Your task to perform on an android device: turn off translation in the chrome app Image 0: 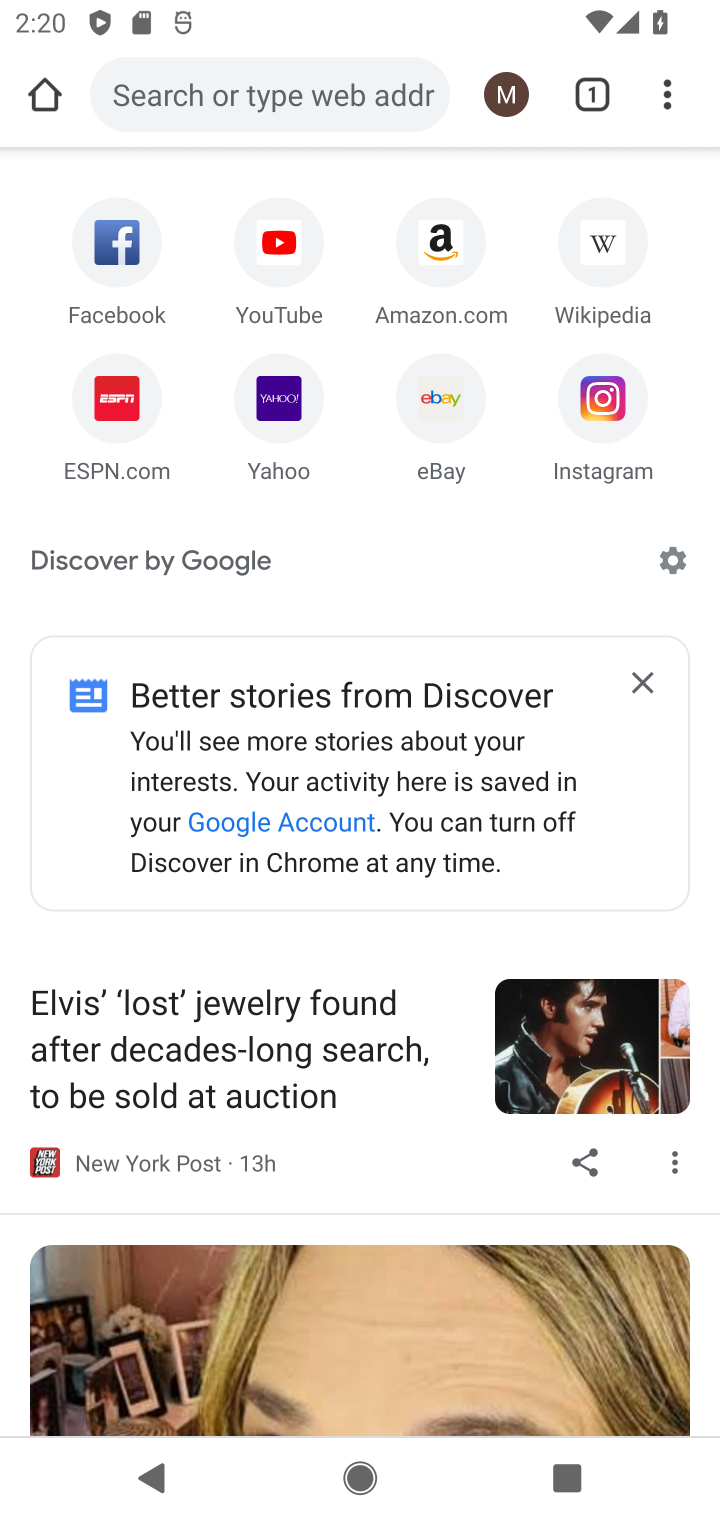
Step 0: press home button
Your task to perform on an android device: turn off translation in the chrome app Image 1: 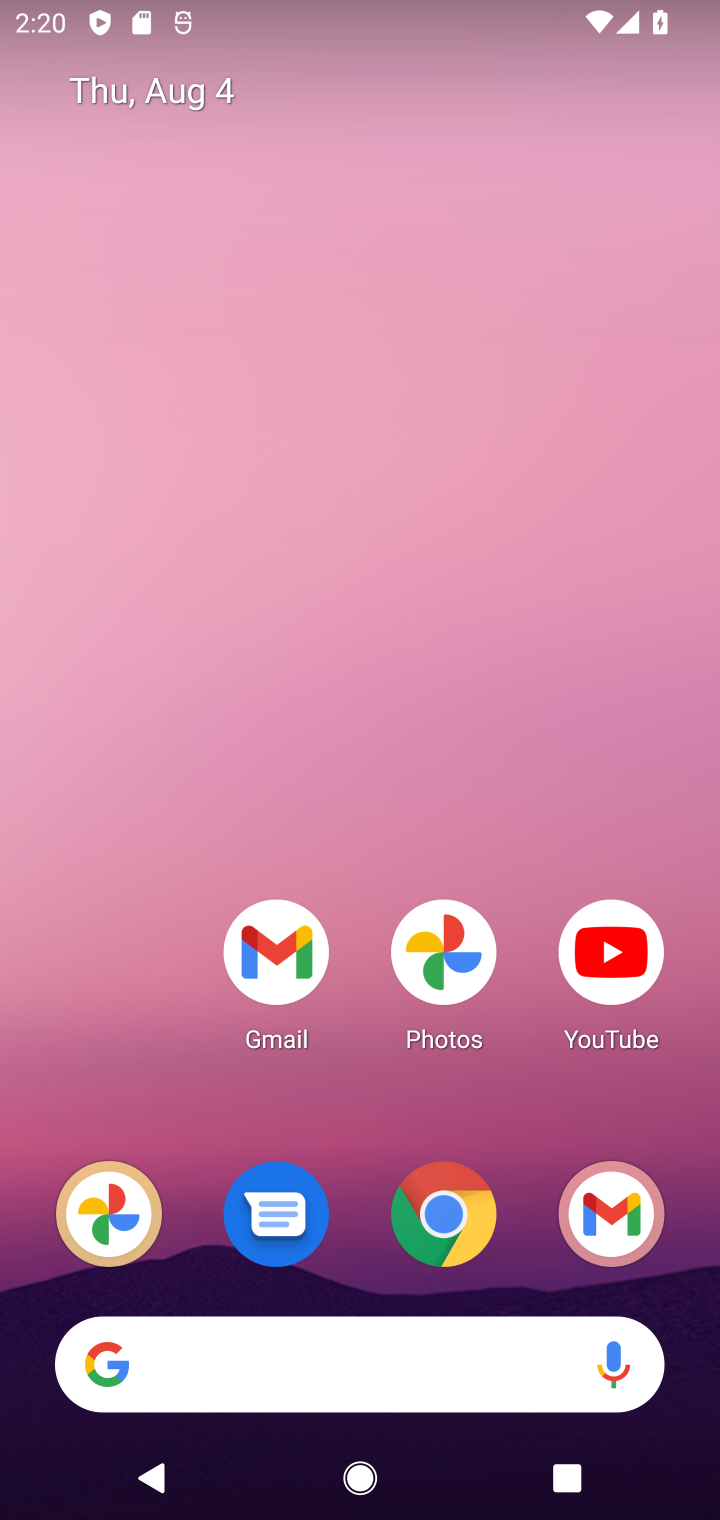
Step 1: drag from (148, 1080) to (371, 49)
Your task to perform on an android device: turn off translation in the chrome app Image 2: 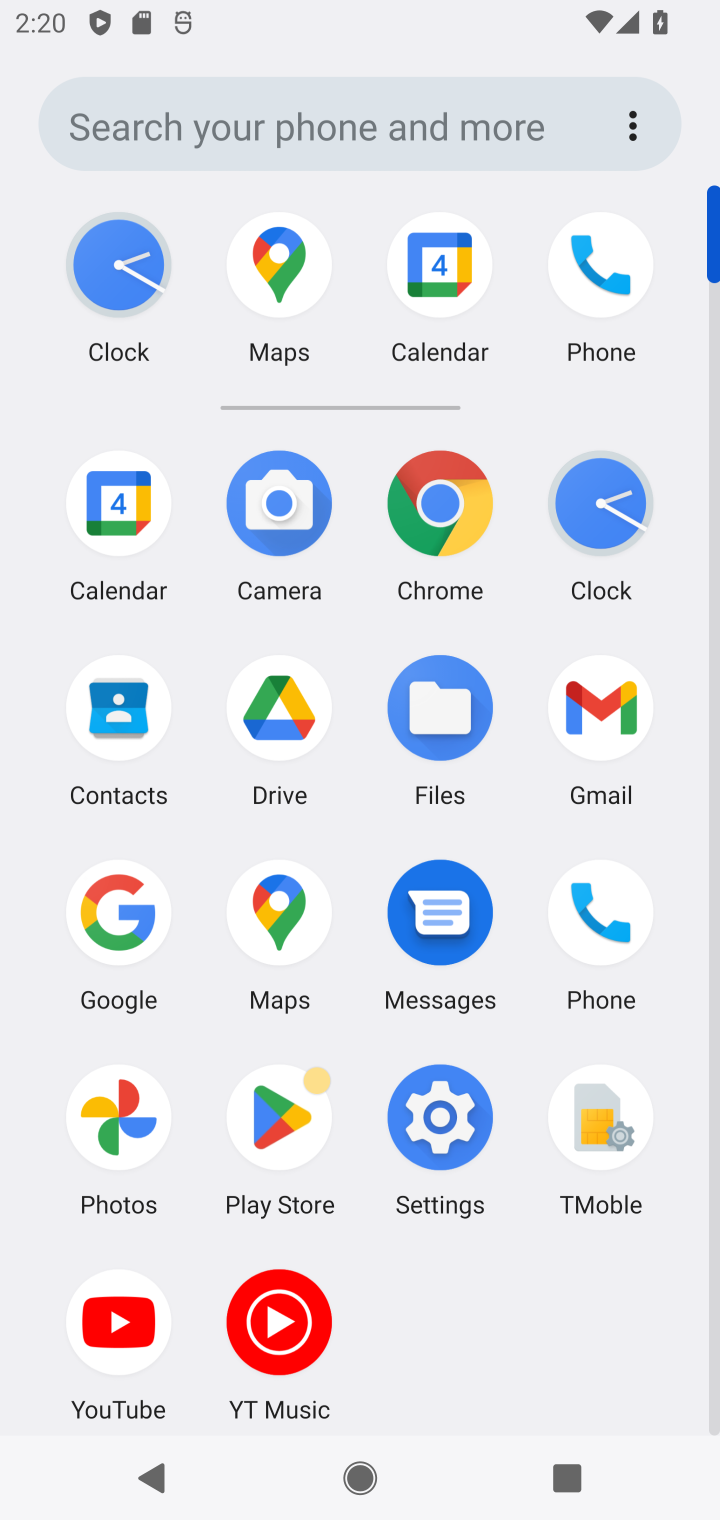
Step 2: click (461, 523)
Your task to perform on an android device: turn off translation in the chrome app Image 3: 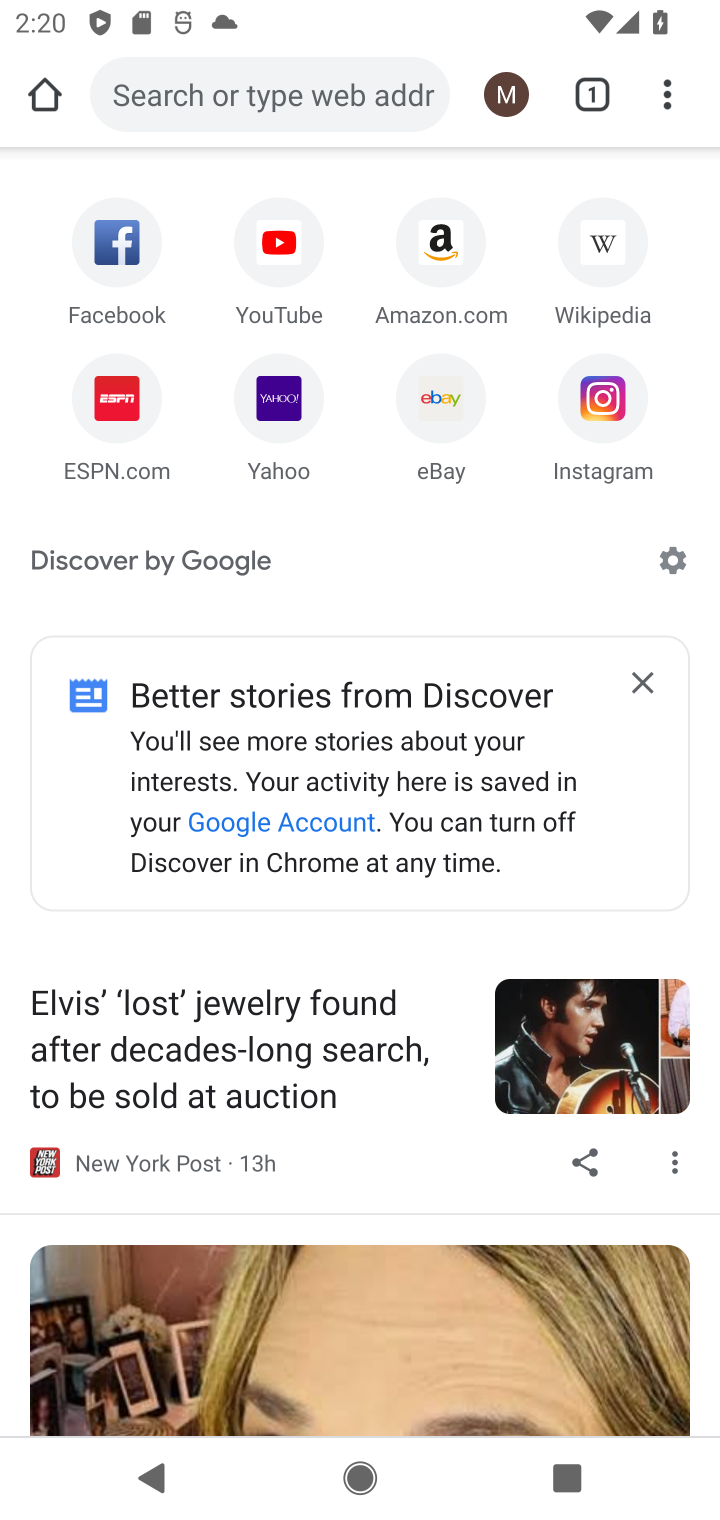
Step 3: click (676, 96)
Your task to perform on an android device: turn off translation in the chrome app Image 4: 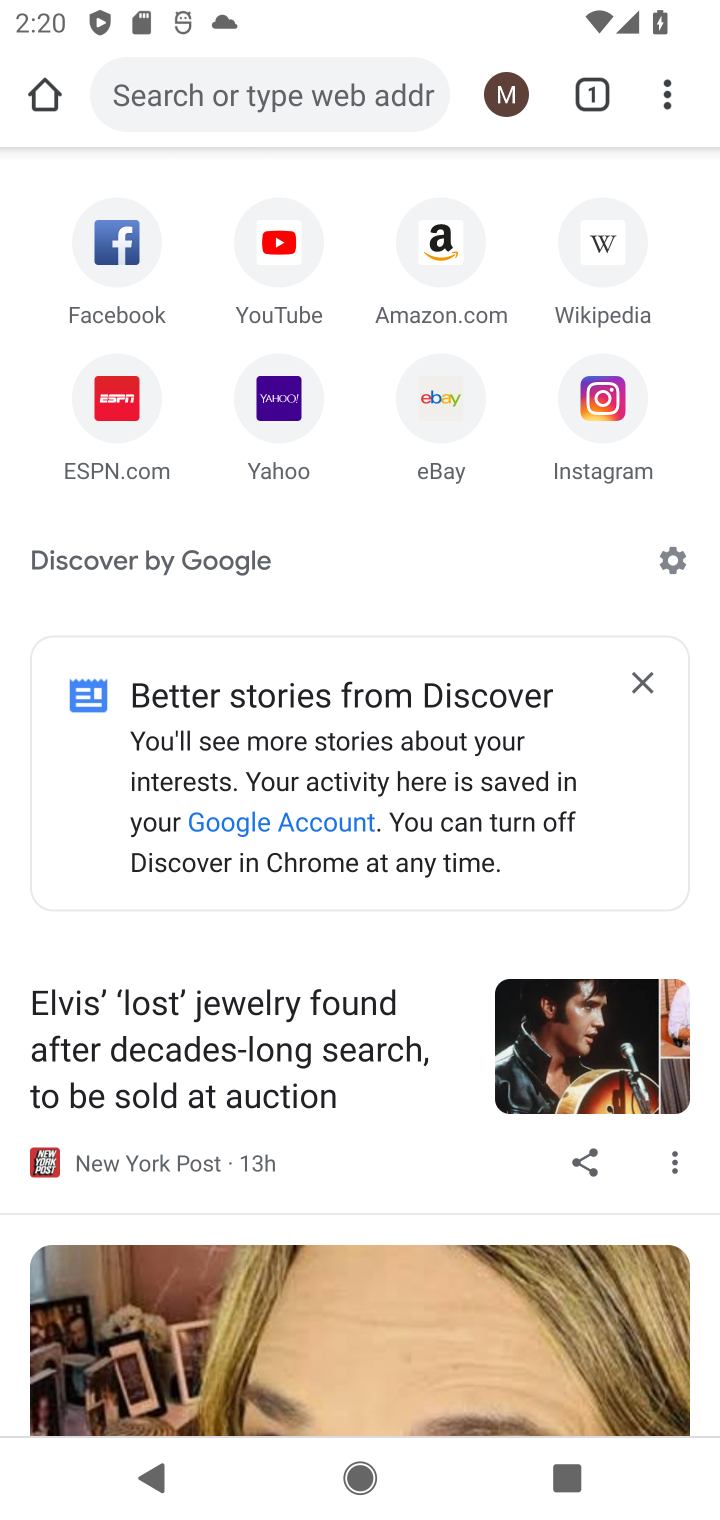
Step 4: click (670, 75)
Your task to perform on an android device: turn off translation in the chrome app Image 5: 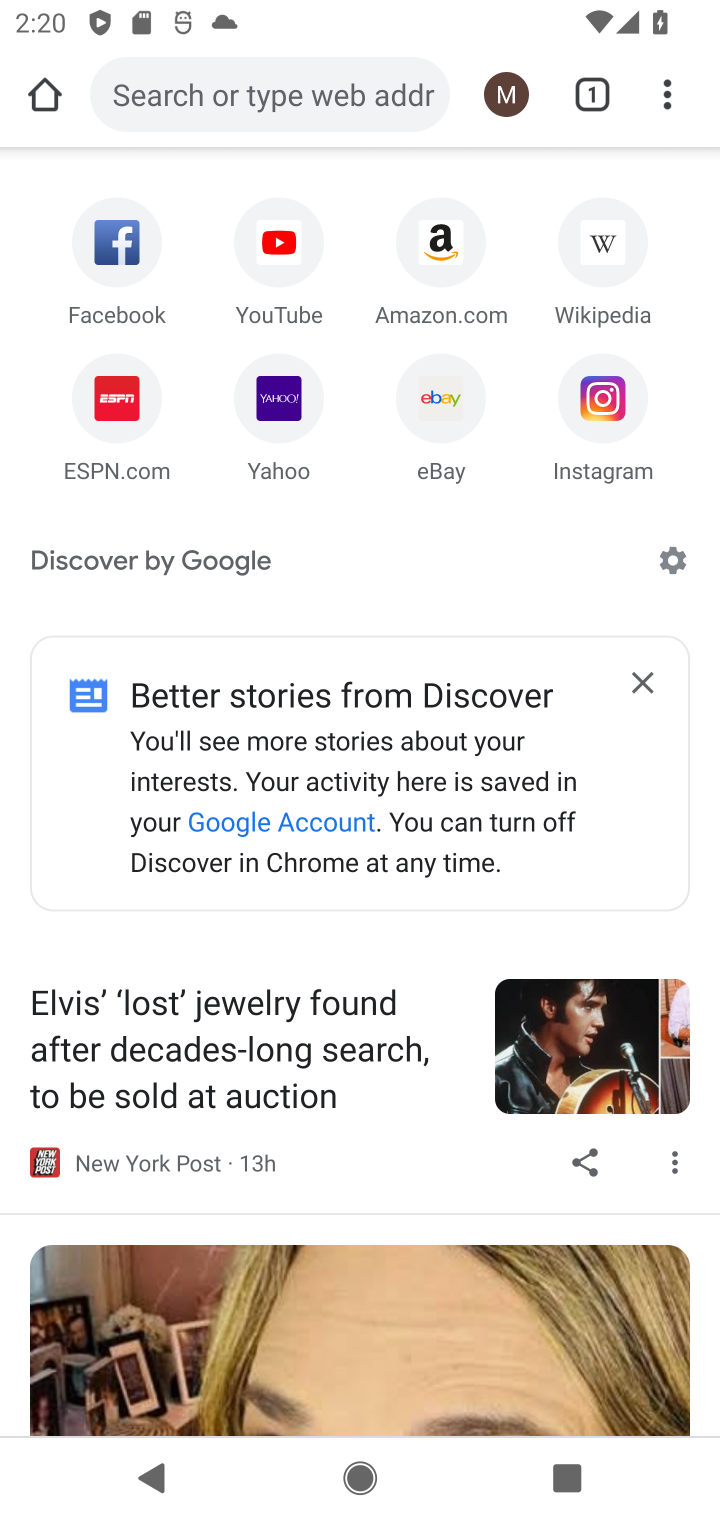
Step 5: click (670, 75)
Your task to perform on an android device: turn off translation in the chrome app Image 6: 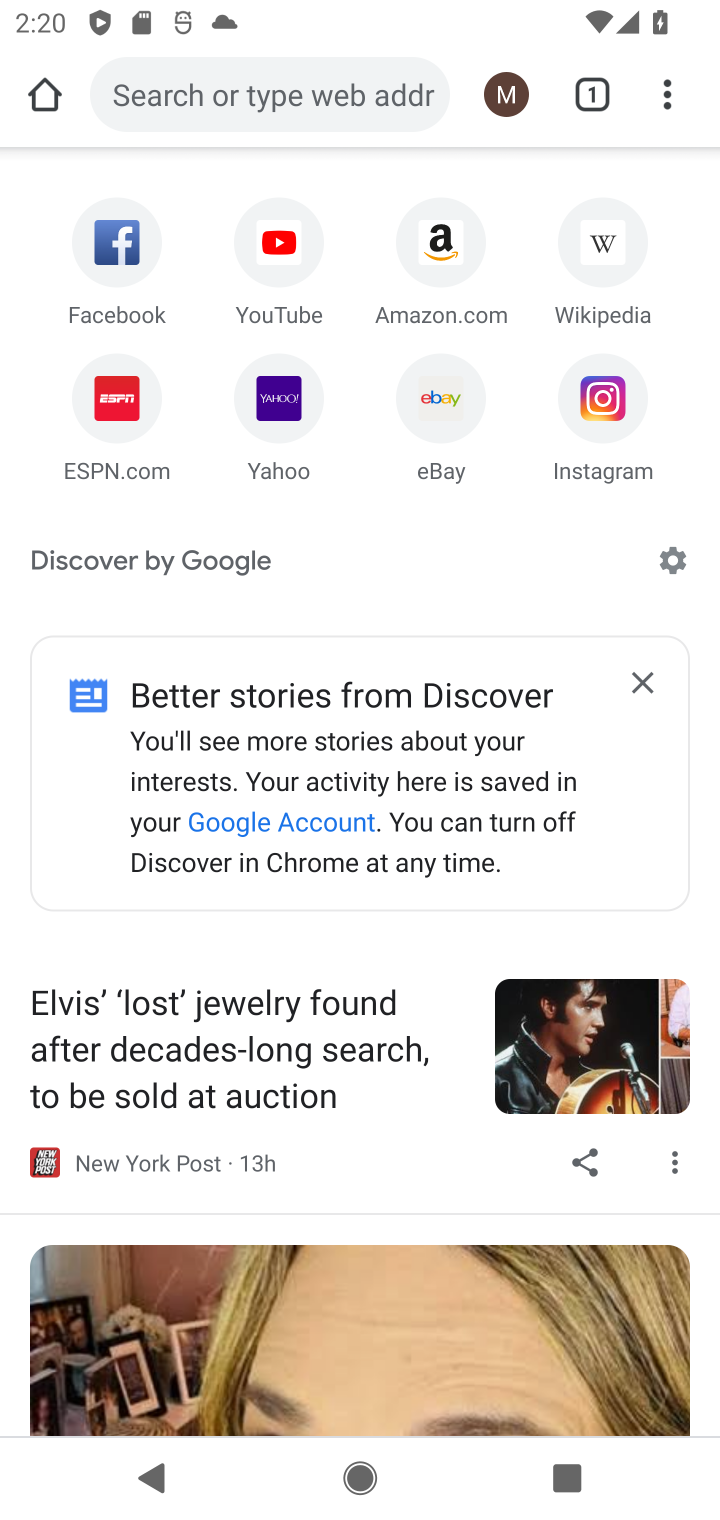
Step 6: click (663, 95)
Your task to perform on an android device: turn off translation in the chrome app Image 7: 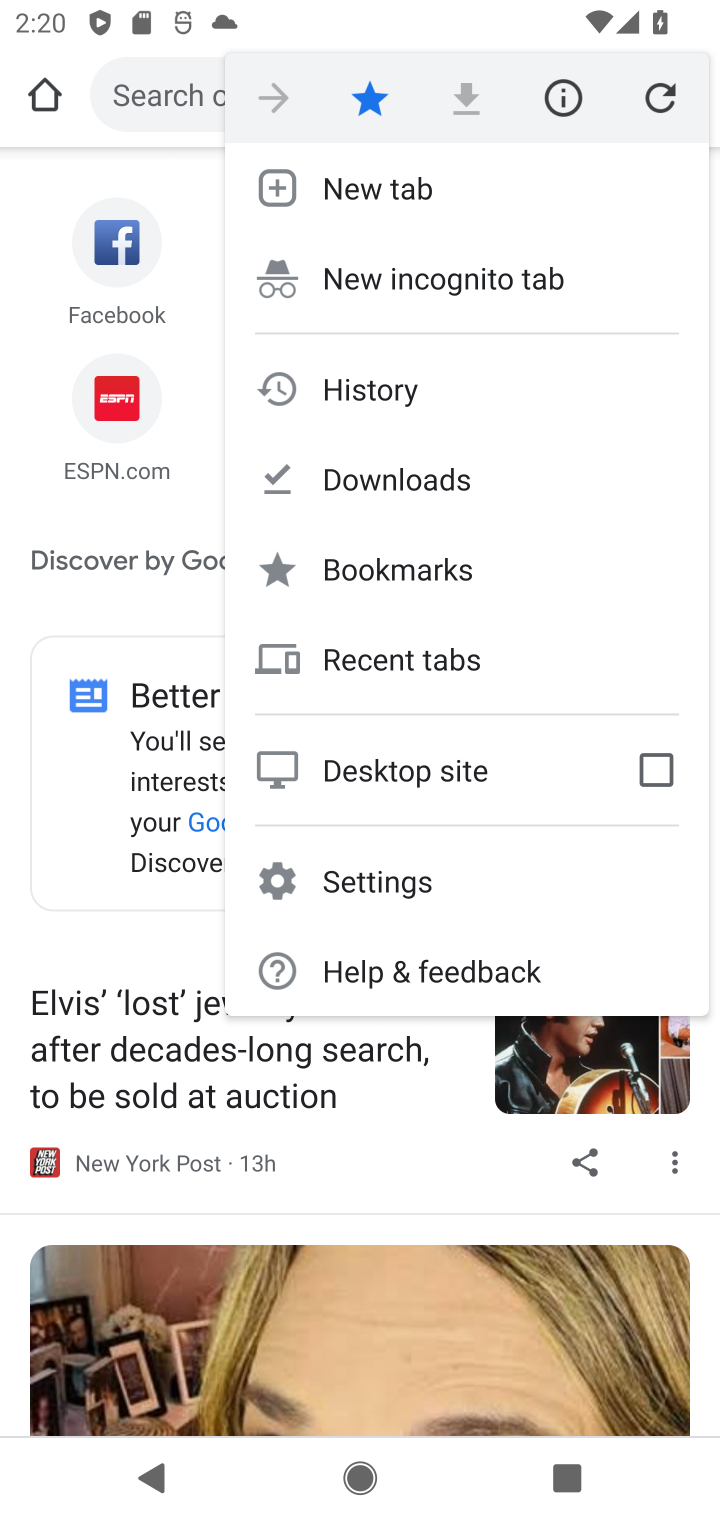
Step 7: click (420, 871)
Your task to perform on an android device: turn off translation in the chrome app Image 8: 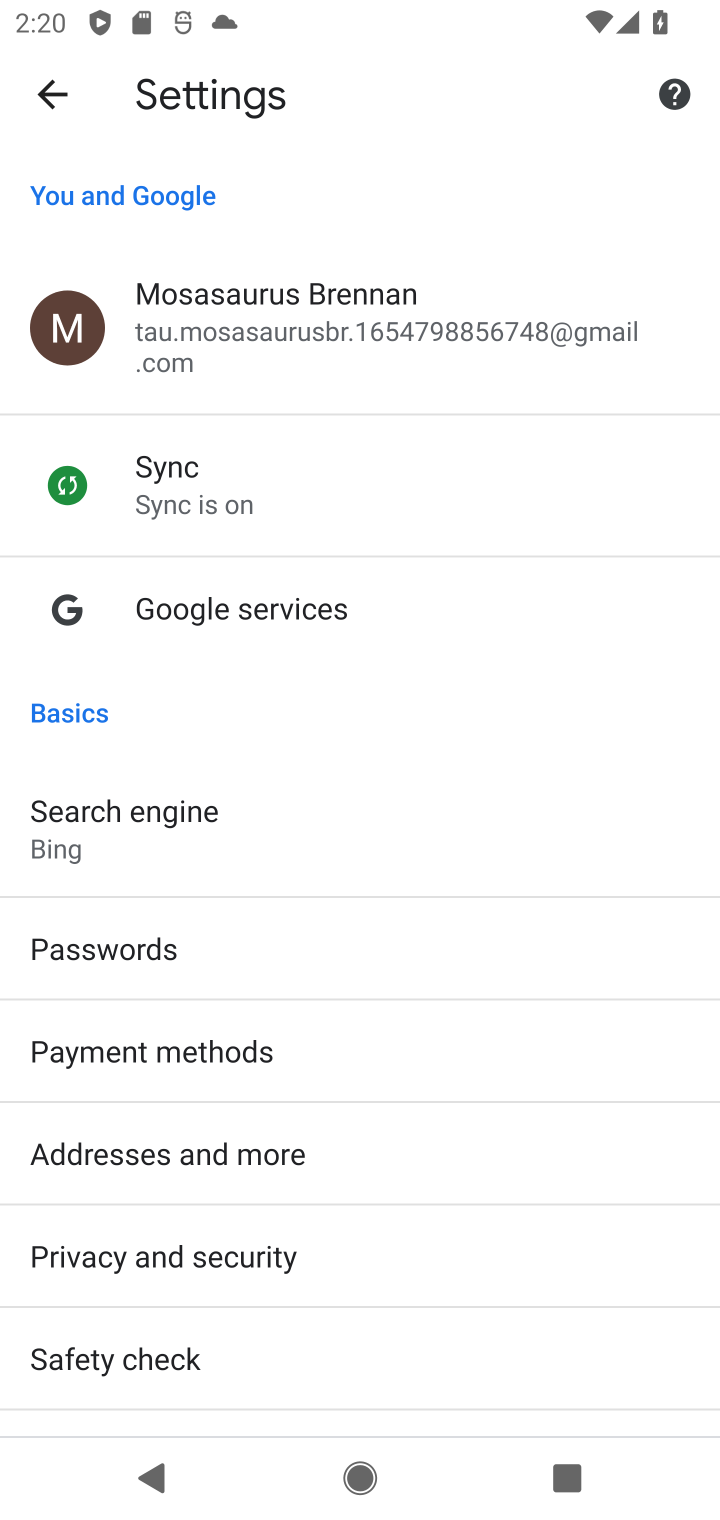
Step 8: drag from (276, 1301) to (248, 583)
Your task to perform on an android device: turn off translation in the chrome app Image 9: 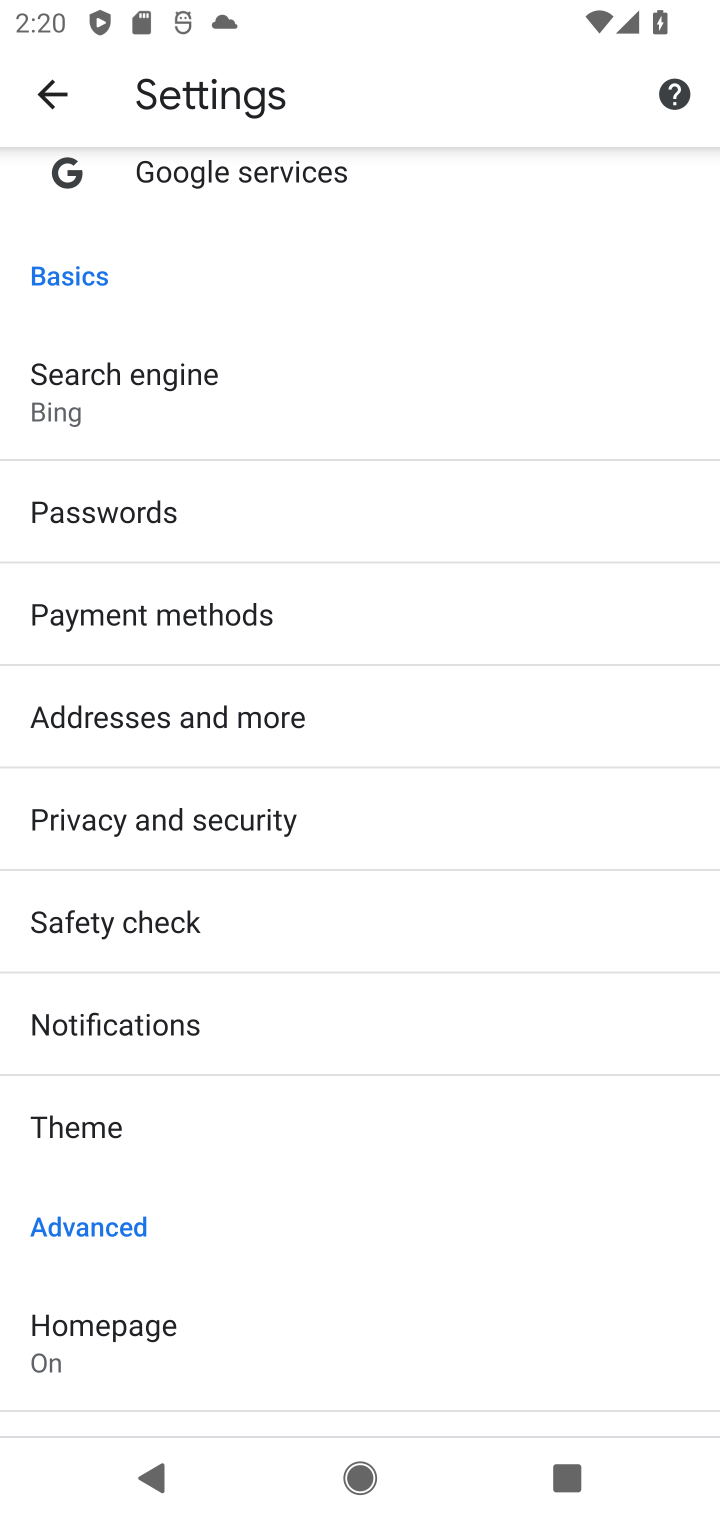
Step 9: drag from (143, 1316) to (317, 327)
Your task to perform on an android device: turn off translation in the chrome app Image 10: 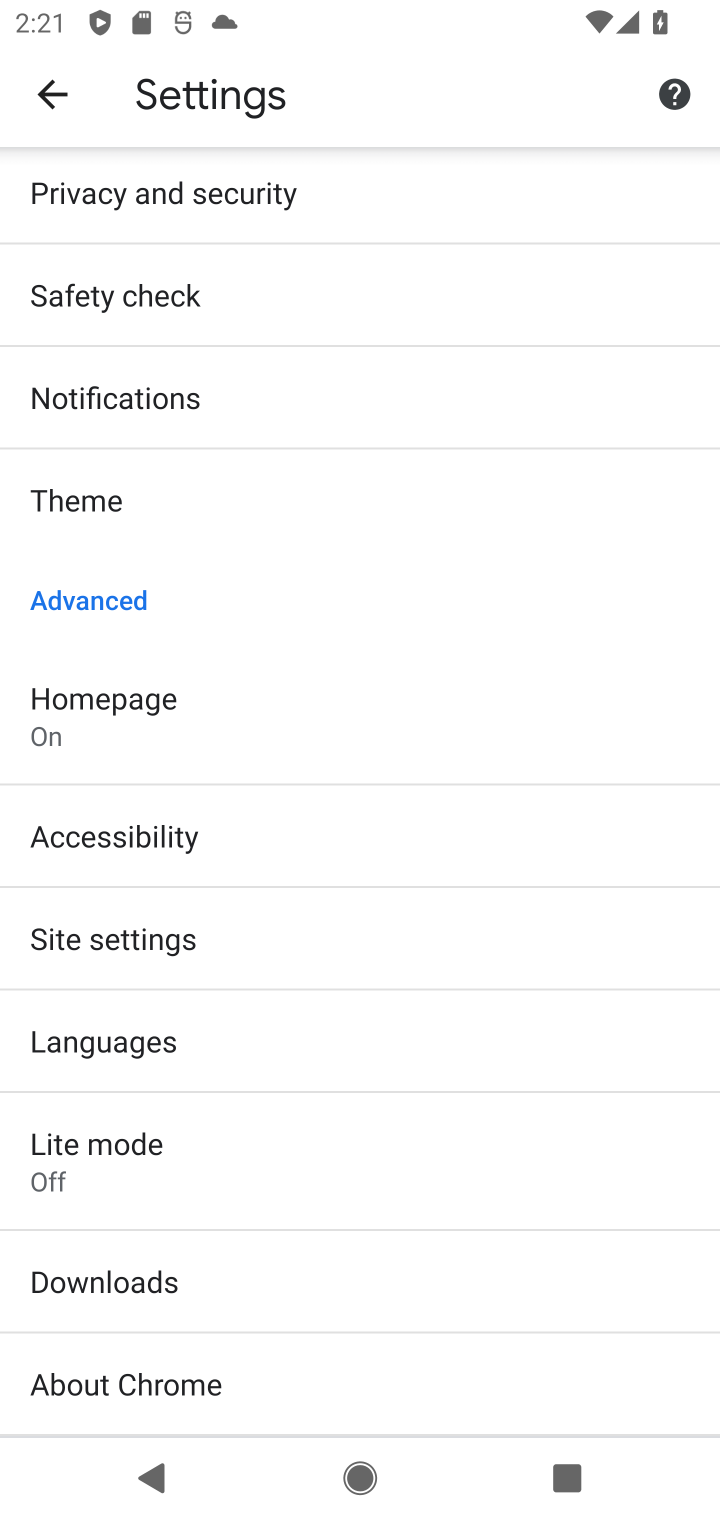
Step 10: click (206, 1071)
Your task to perform on an android device: turn off translation in the chrome app Image 11: 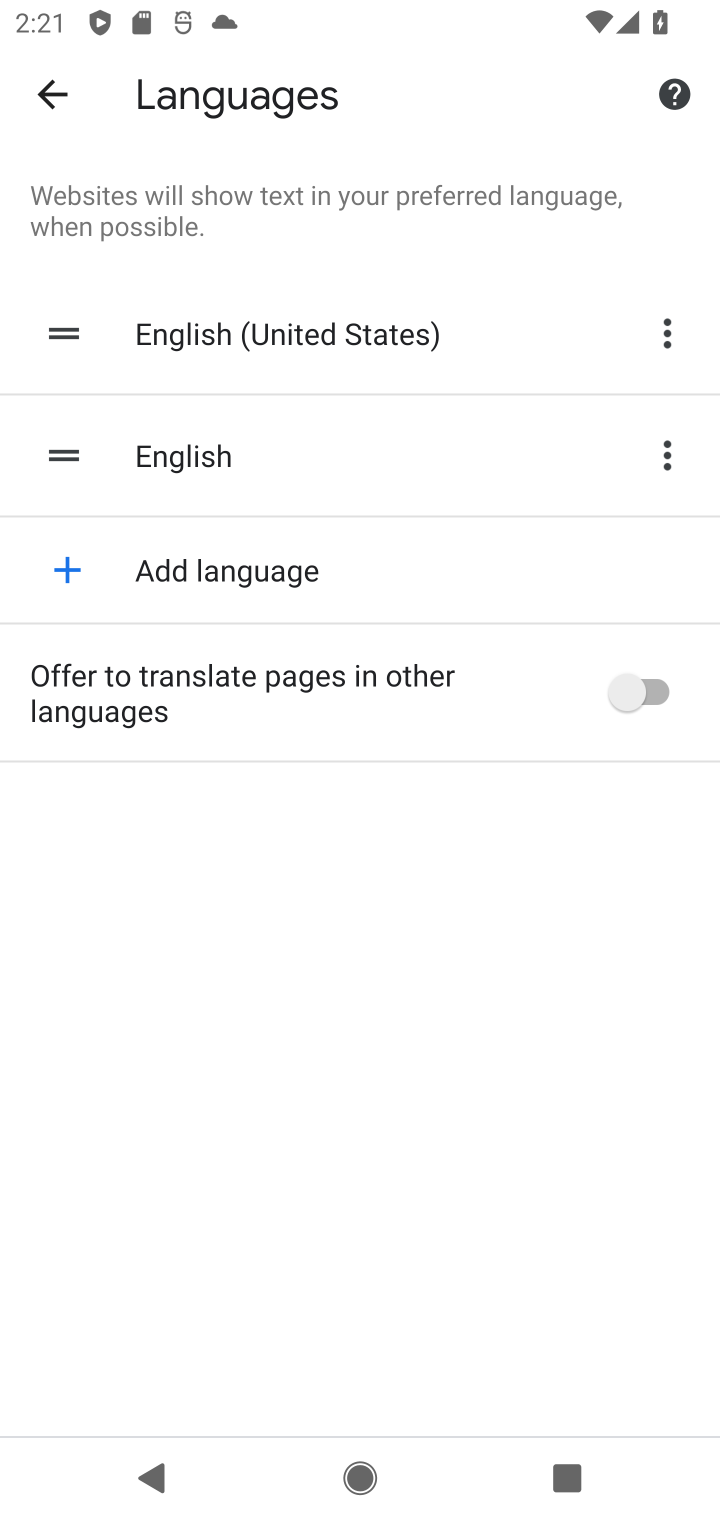
Step 11: task complete